Your task to perform on an android device: Open Maps and search for coffee Image 0: 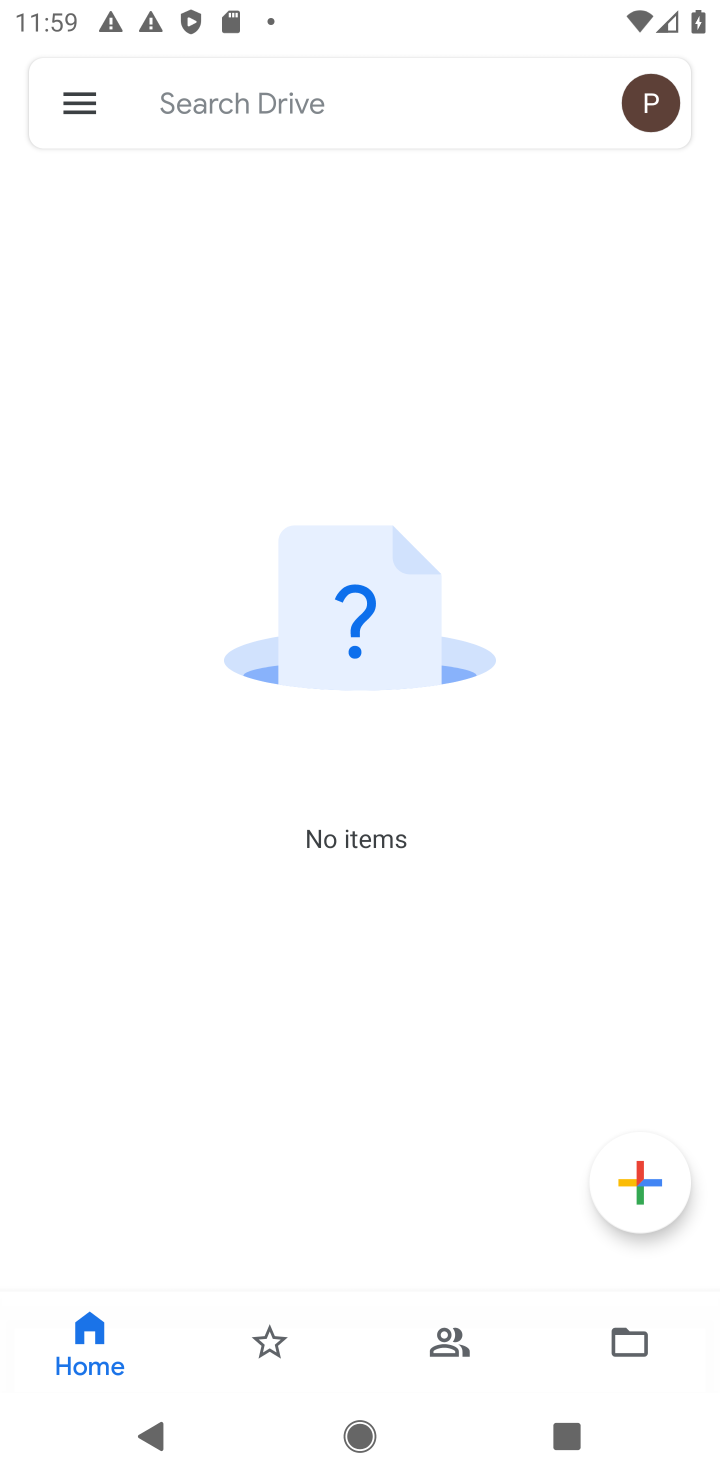
Step 0: task complete